Your task to perform on an android device: delete the emails in spam in the gmail app Image 0: 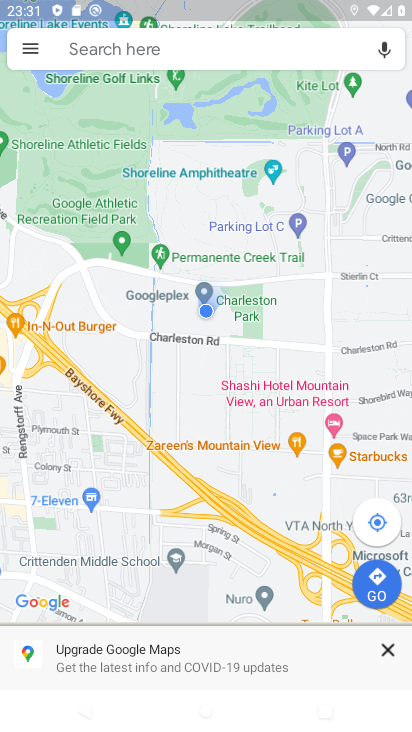
Step 0: press home button
Your task to perform on an android device: delete the emails in spam in the gmail app Image 1: 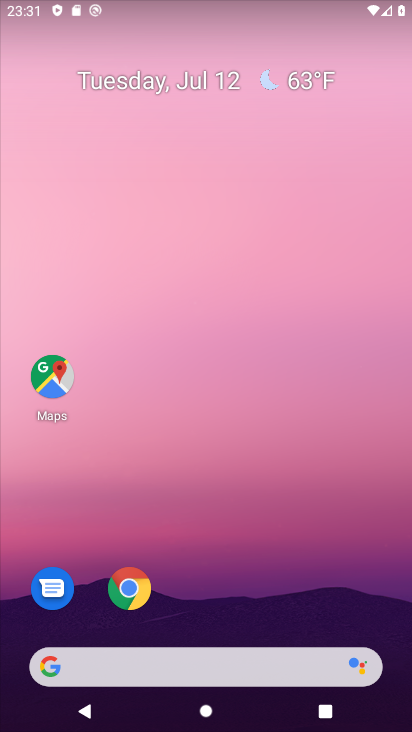
Step 1: drag from (32, 723) to (229, 105)
Your task to perform on an android device: delete the emails in spam in the gmail app Image 2: 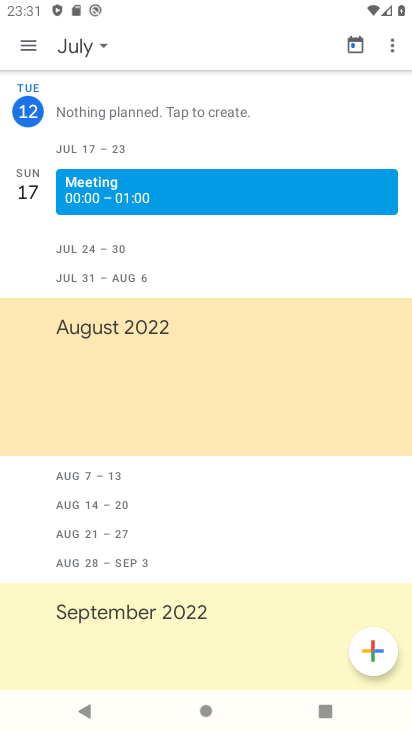
Step 2: press home button
Your task to perform on an android device: delete the emails in spam in the gmail app Image 3: 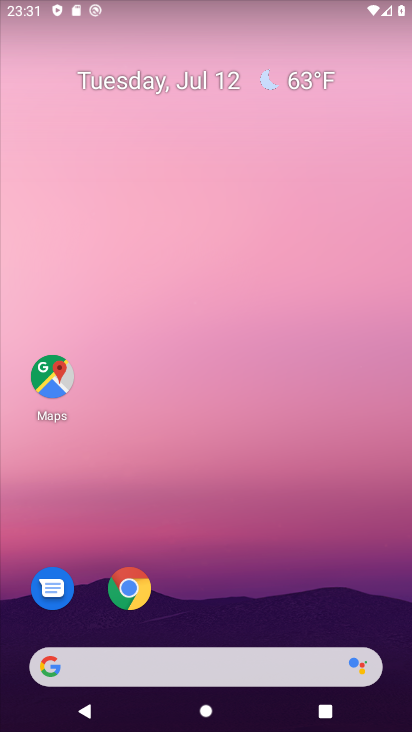
Step 3: drag from (27, 683) to (202, 78)
Your task to perform on an android device: delete the emails in spam in the gmail app Image 4: 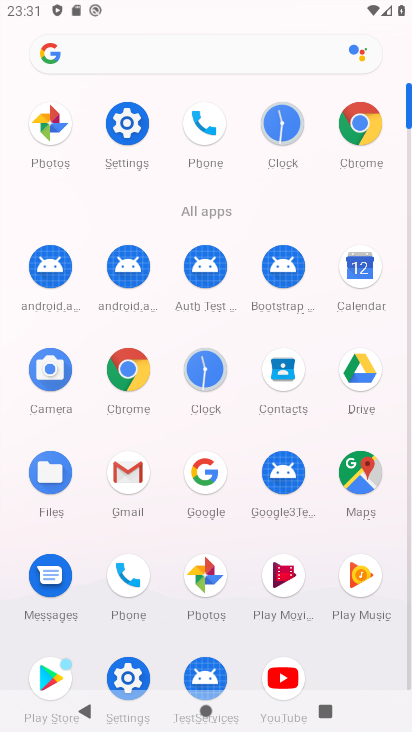
Step 4: click (127, 480)
Your task to perform on an android device: delete the emails in spam in the gmail app Image 5: 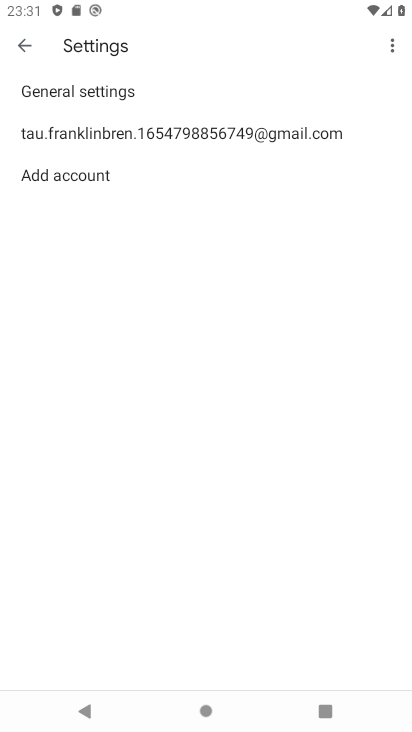
Step 5: click (28, 44)
Your task to perform on an android device: delete the emails in spam in the gmail app Image 6: 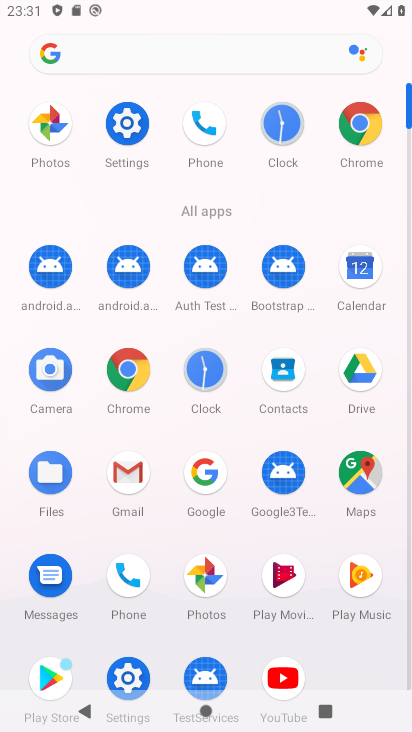
Step 6: click (123, 477)
Your task to perform on an android device: delete the emails in spam in the gmail app Image 7: 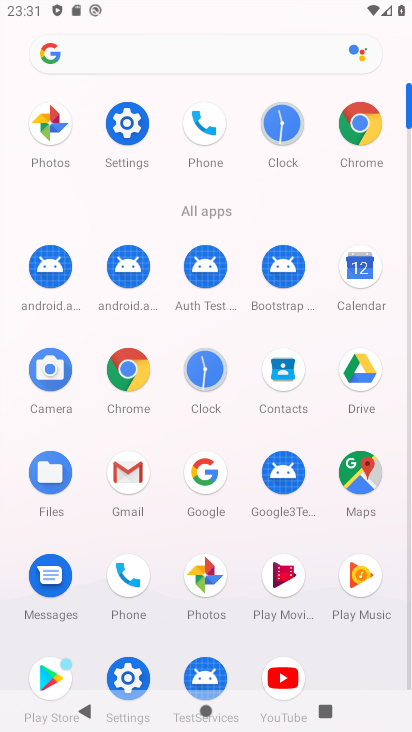
Step 7: click (121, 466)
Your task to perform on an android device: delete the emails in spam in the gmail app Image 8: 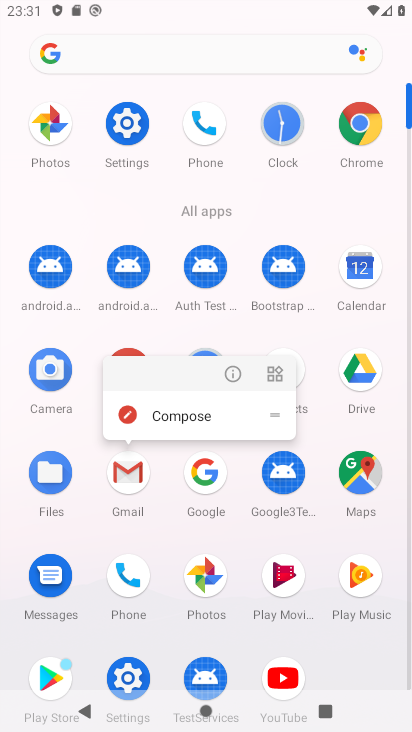
Step 8: click (121, 470)
Your task to perform on an android device: delete the emails in spam in the gmail app Image 9: 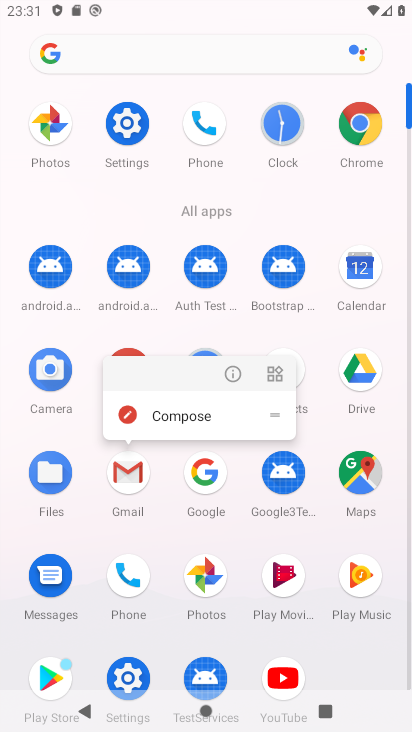
Step 9: click (129, 478)
Your task to perform on an android device: delete the emails in spam in the gmail app Image 10: 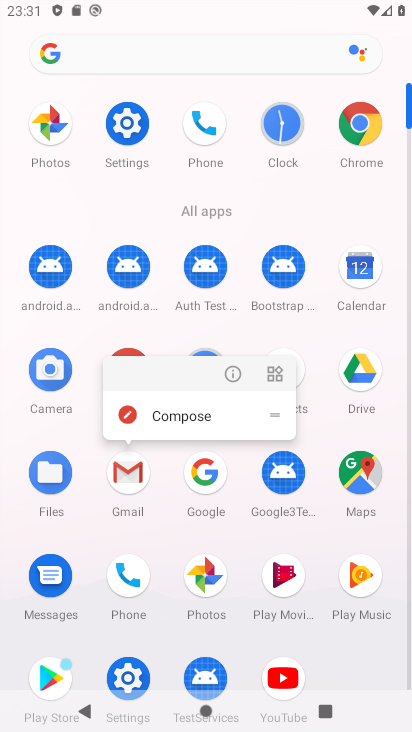
Step 10: task complete